Your task to perform on an android device: change the clock display to digital Image 0: 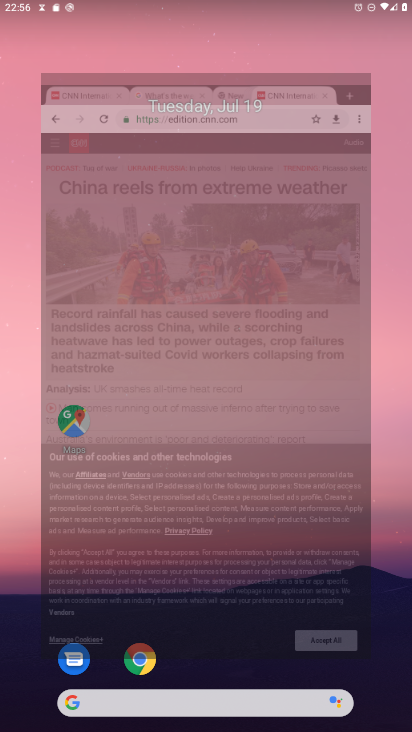
Step 0: drag from (189, 646) to (191, 151)
Your task to perform on an android device: change the clock display to digital Image 1: 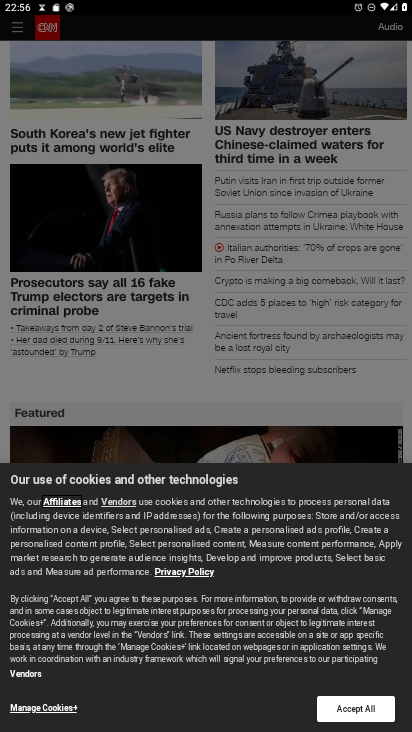
Step 1: press home button
Your task to perform on an android device: change the clock display to digital Image 2: 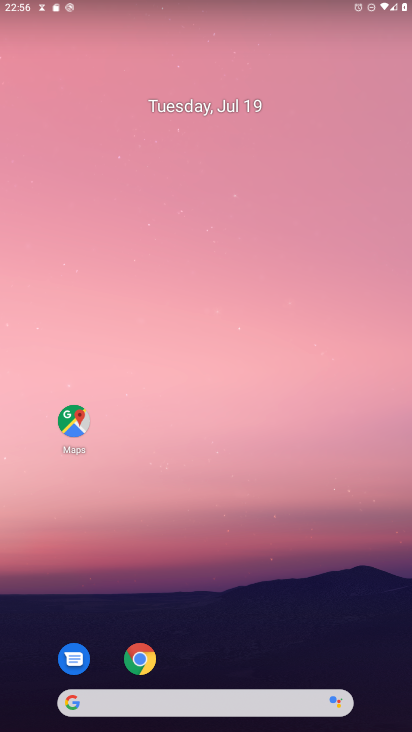
Step 2: drag from (296, 637) to (298, 313)
Your task to perform on an android device: change the clock display to digital Image 3: 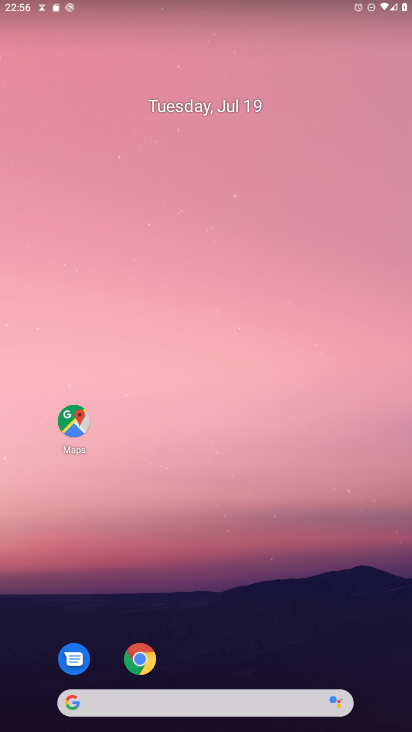
Step 3: drag from (195, 661) to (196, 265)
Your task to perform on an android device: change the clock display to digital Image 4: 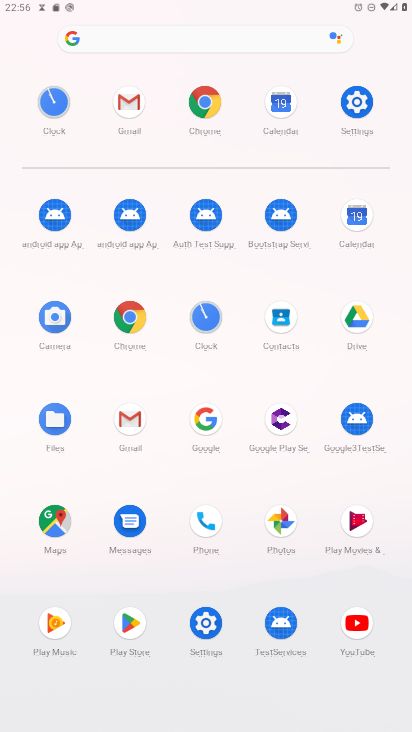
Step 4: click (206, 320)
Your task to perform on an android device: change the clock display to digital Image 5: 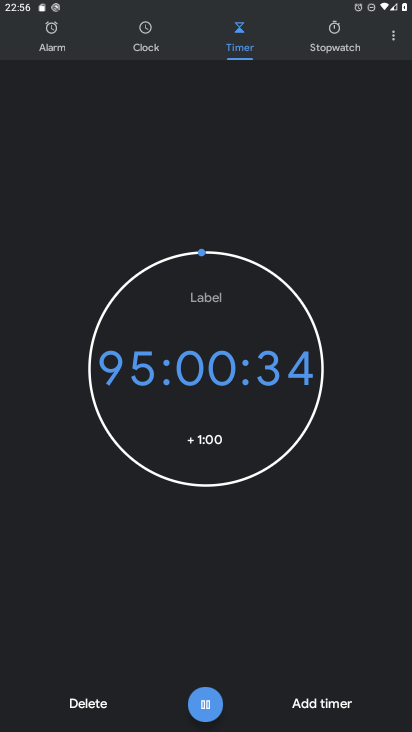
Step 5: click (390, 41)
Your task to perform on an android device: change the clock display to digital Image 6: 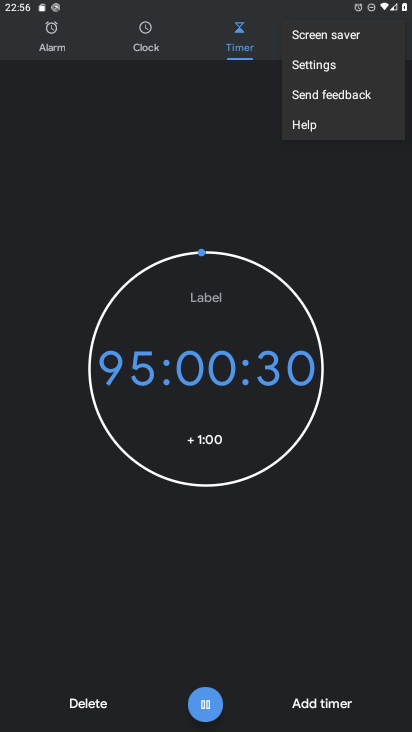
Step 6: click (305, 62)
Your task to perform on an android device: change the clock display to digital Image 7: 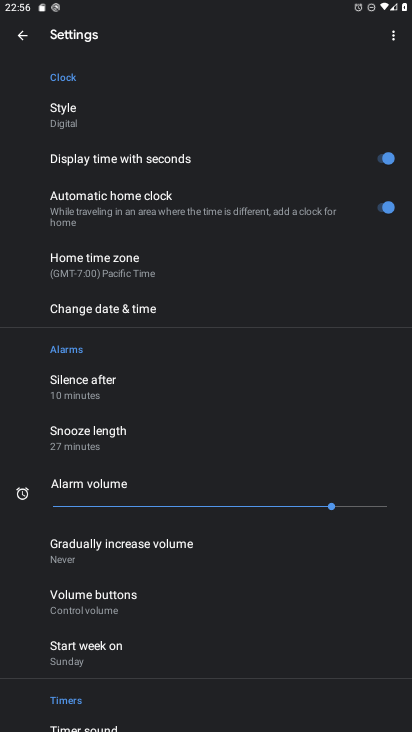
Step 7: click (74, 119)
Your task to perform on an android device: change the clock display to digital Image 8: 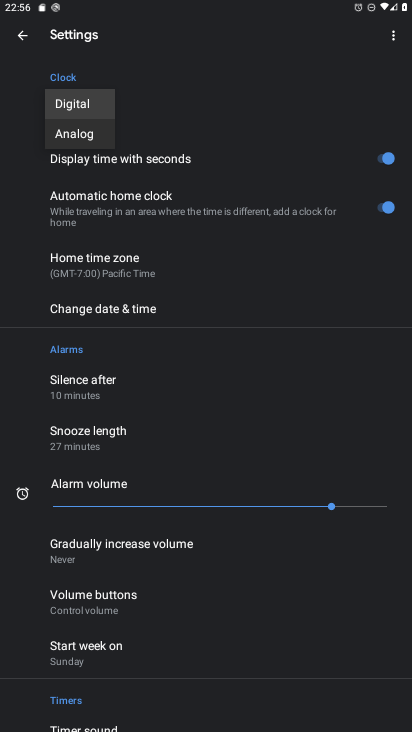
Step 8: task complete